Your task to perform on an android device: Go to Android settings Image 0: 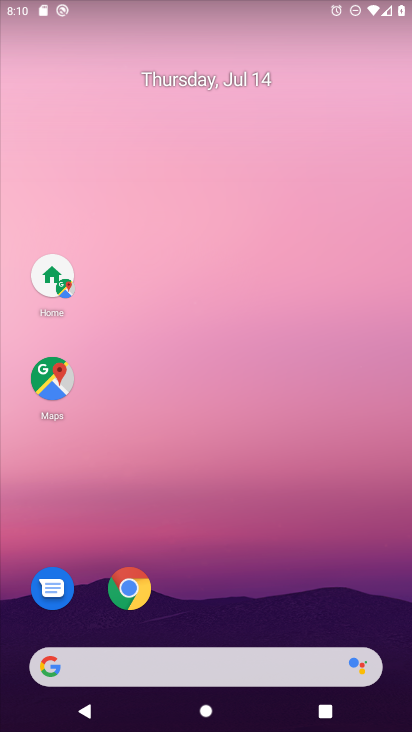
Step 0: drag from (25, 710) to (51, 114)
Your task to perform on an android device: Go to Android settings Image 1: 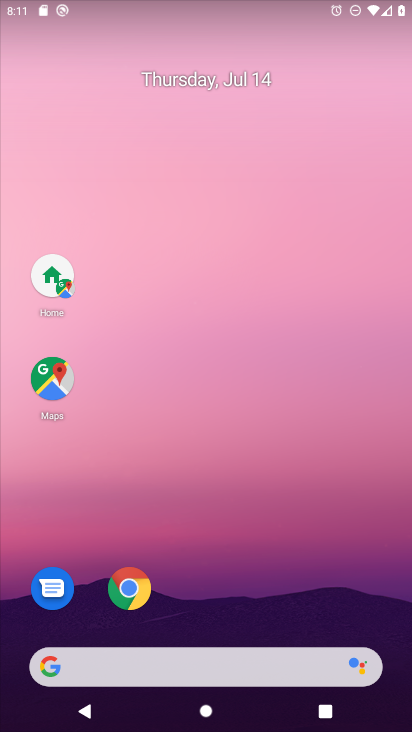
Step 1: drag from (69, 674) to (239, 18)
Your task to perform on an android device: Go to Android settings Image 2: 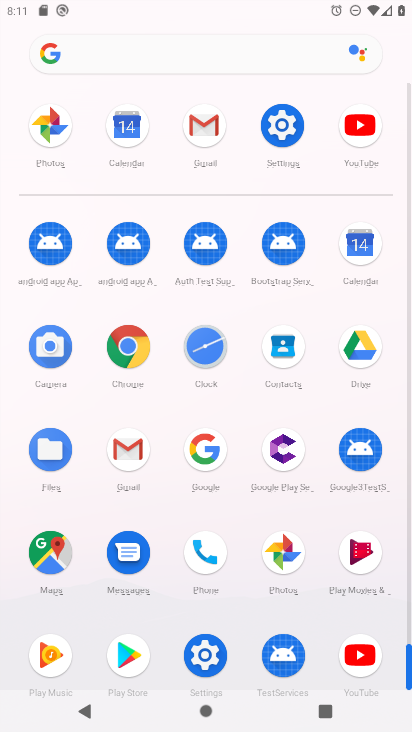
Step 2: click (203, 670)
Your task to perform on an android device: Go to Android settings Image 3: 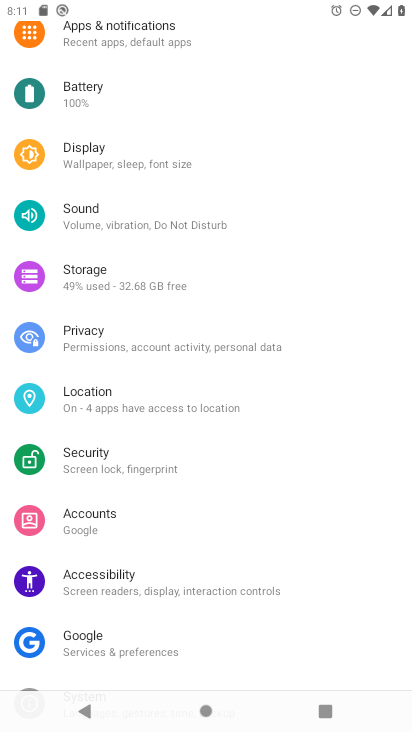
Step 3: drag from (291, 643) to (291, 89)
Your task to perform on an android device: Go to Android settings Image 4: 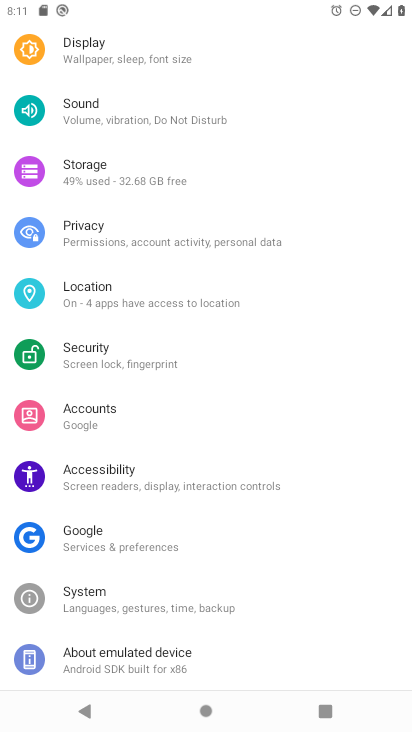
Step 4: click (147, 655)
Your task to perform on an android device: Go to Android settings Image 5: 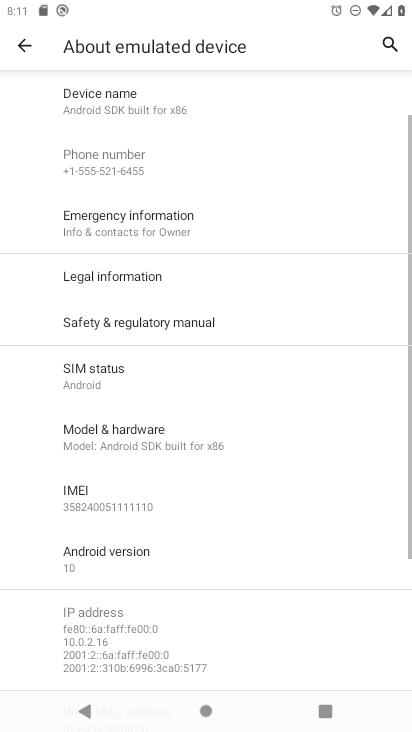
Step 5: click (160, 567)
Your task to perform on an android device: Go to Android settings Image 6: 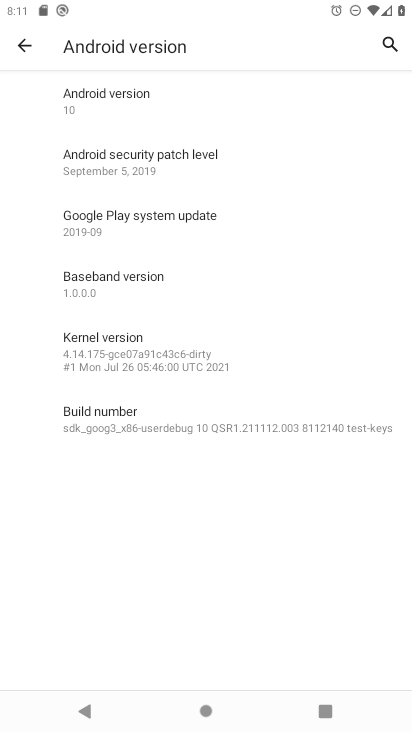
Step 6: task complete